Your task to perform on an android device: Search for seafood restaurants on Google Maps Image 0: 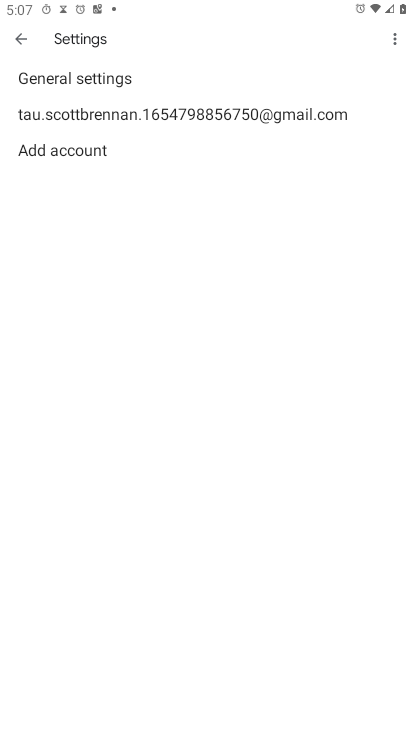
Step 0: press home button
Your task to perform on an android device: Search for seafood restaurants on Google Maps Image 1: 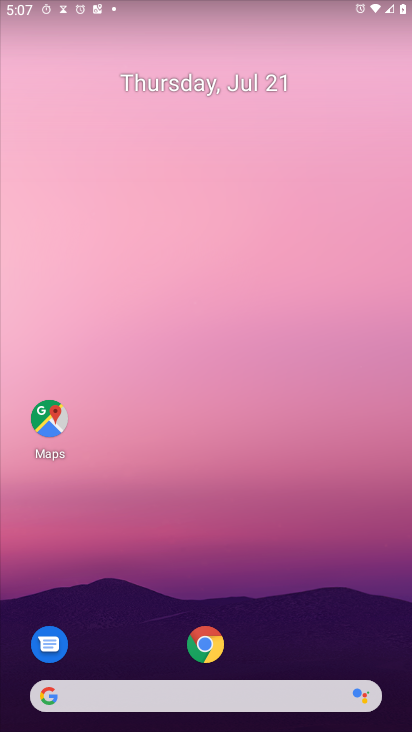
Step 1: click (53, 409)
Your task to perform on an android device: Search for seafood restaurants on Google Maps Image 2: 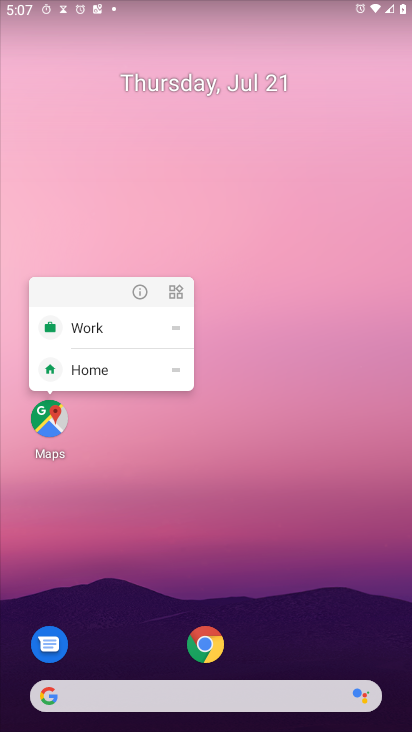
Step 2: click (44, 422)
Your task to perform on an android device: Search for seafood restaurants on Google Maps Image 3: 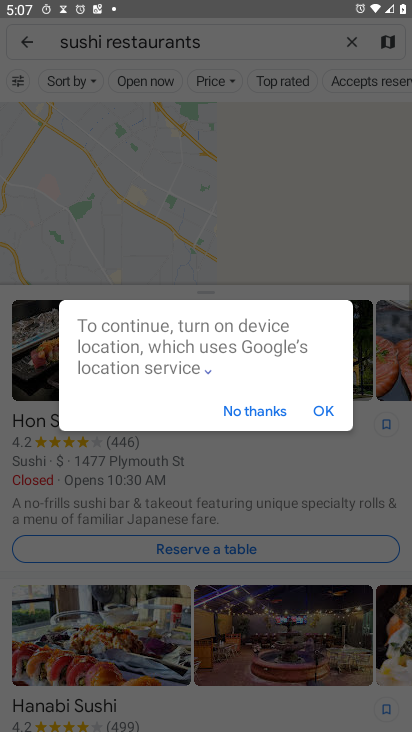
Step 3: click (265, 411)
Your task to perform on an android device: Search for seafood restaurants on Google Maps Image 4: 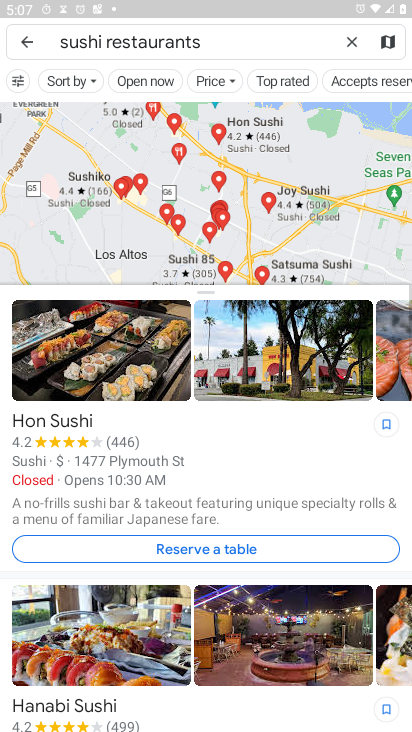
Step 4: click (353, 41)
Your task to perform on an android device: Search for seafood restaurants on Google Maps Image 5: 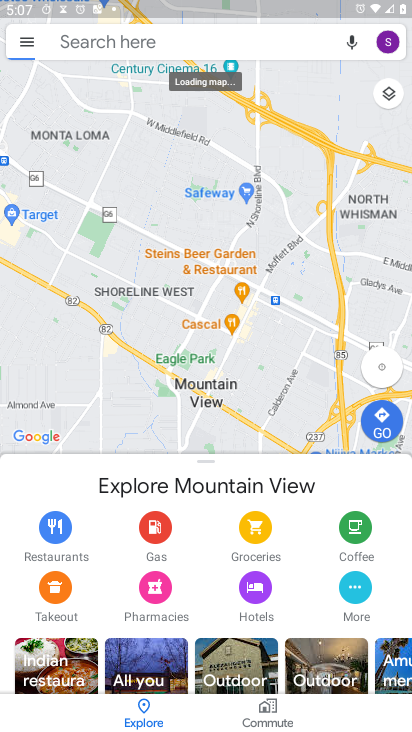
Step 5: type "seafood restaurants"
Your task to perform on an android device: Search for seafood restaurants on Google Maps Image 6: 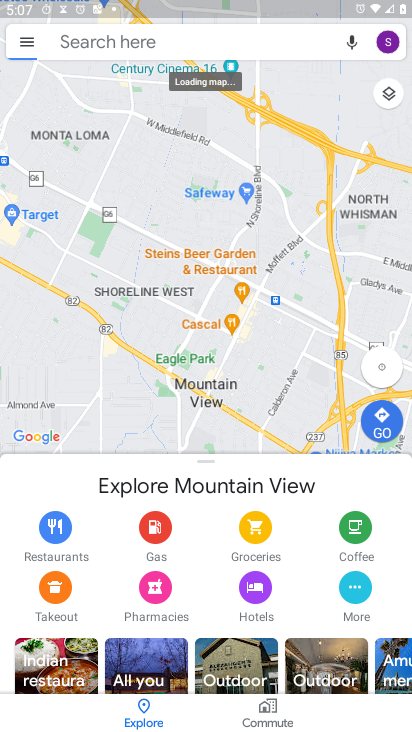
Step 6: click (129, 39)
Your task to perform on an android device: Search for seafood restaurants on Google Maps Image 7: 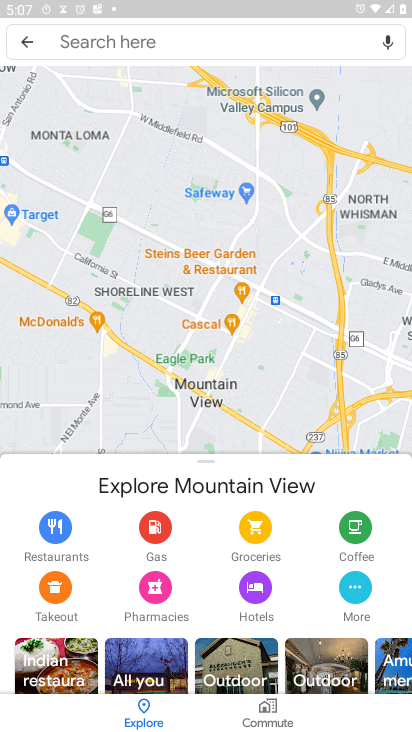
Step 7: click (121, 37)
Your task to perform on an android device: Search for seafood restaurants on Google Maps Image 8: 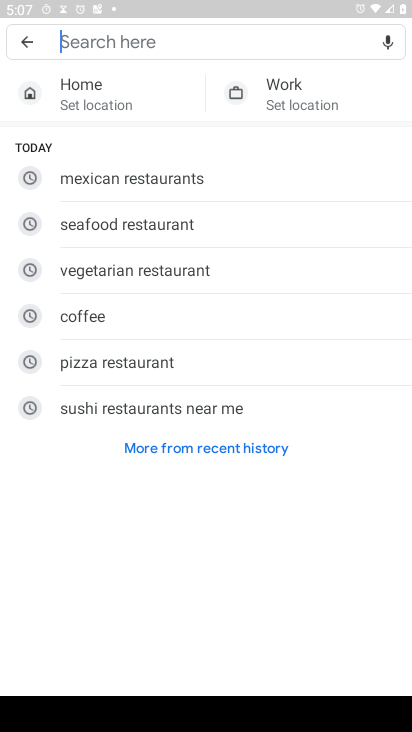
Step 8: click (133, 228)
Your task to perform on an android device: Search for seafood restaurants on Google Maps Image 9: 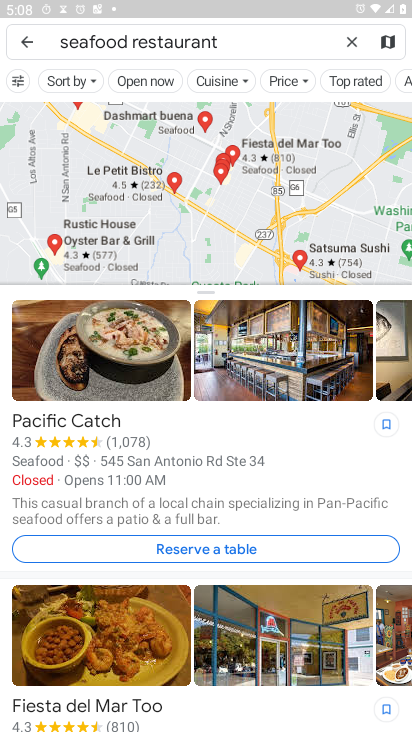
Step 9: task complete